Your task to perform on an android device: Open calendar and show me the fourth week of next month Image 0: 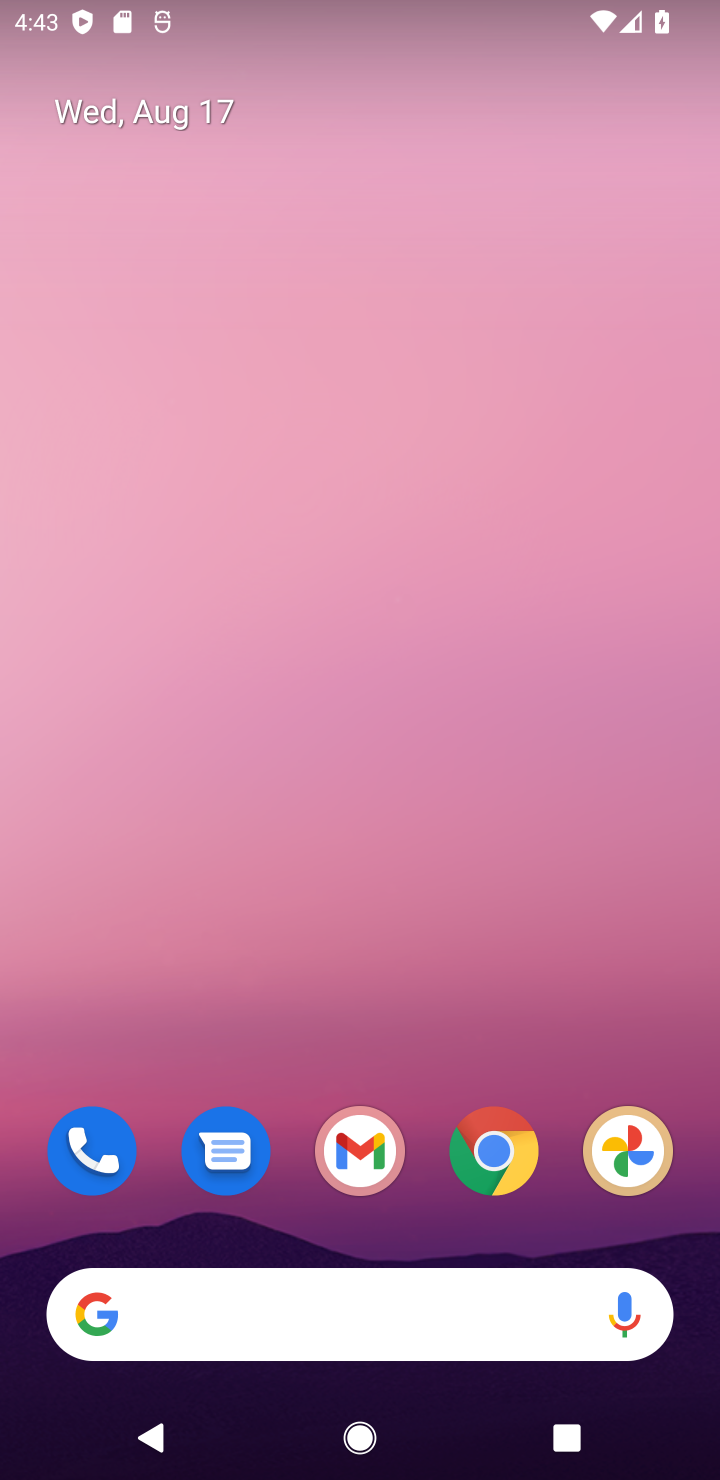
Step 0: click (409, 1246)
Your task to perform on an android device: Open calendar and show me the fourth week of next month Image 1: 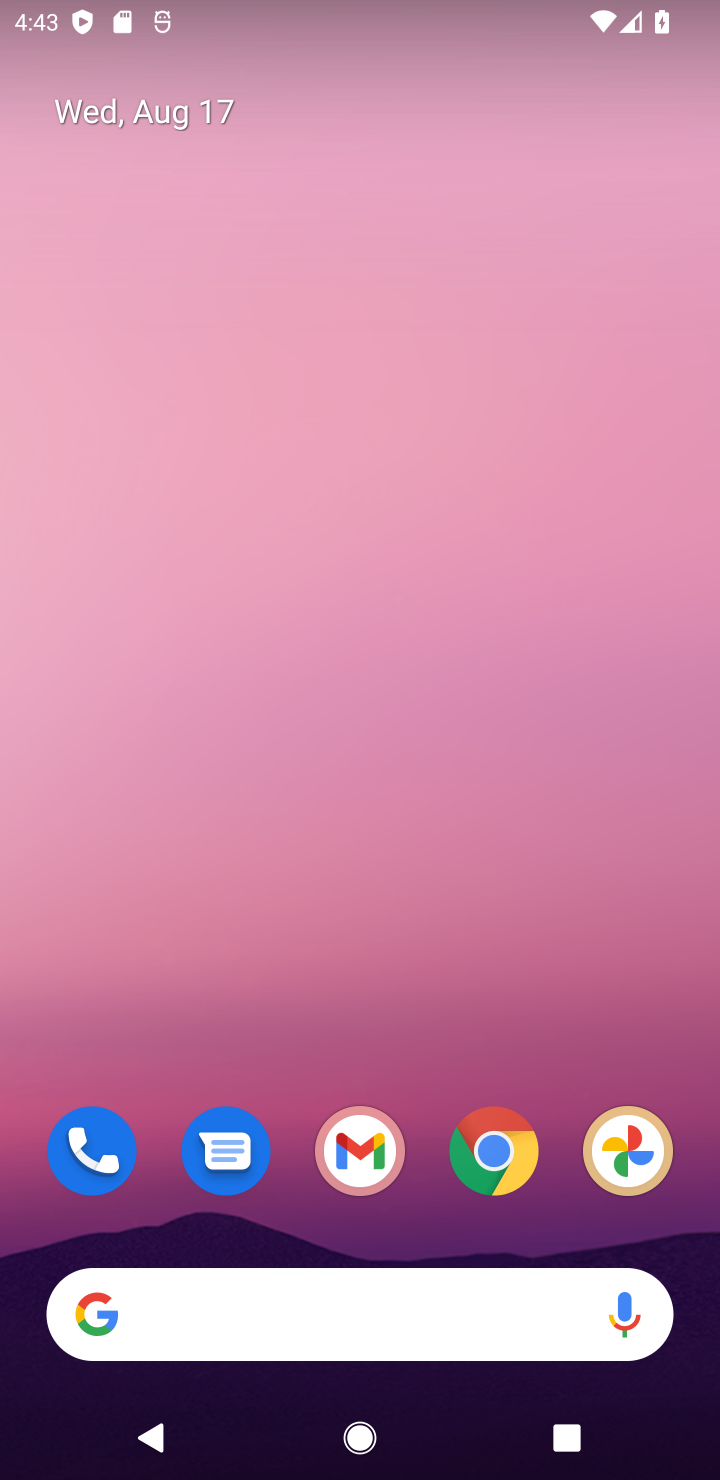
Step 1: drag from (409, 1246) to (386, 115)
Your task to perform on an android device: Open calendar and show me the fourth week of next month Image 2: 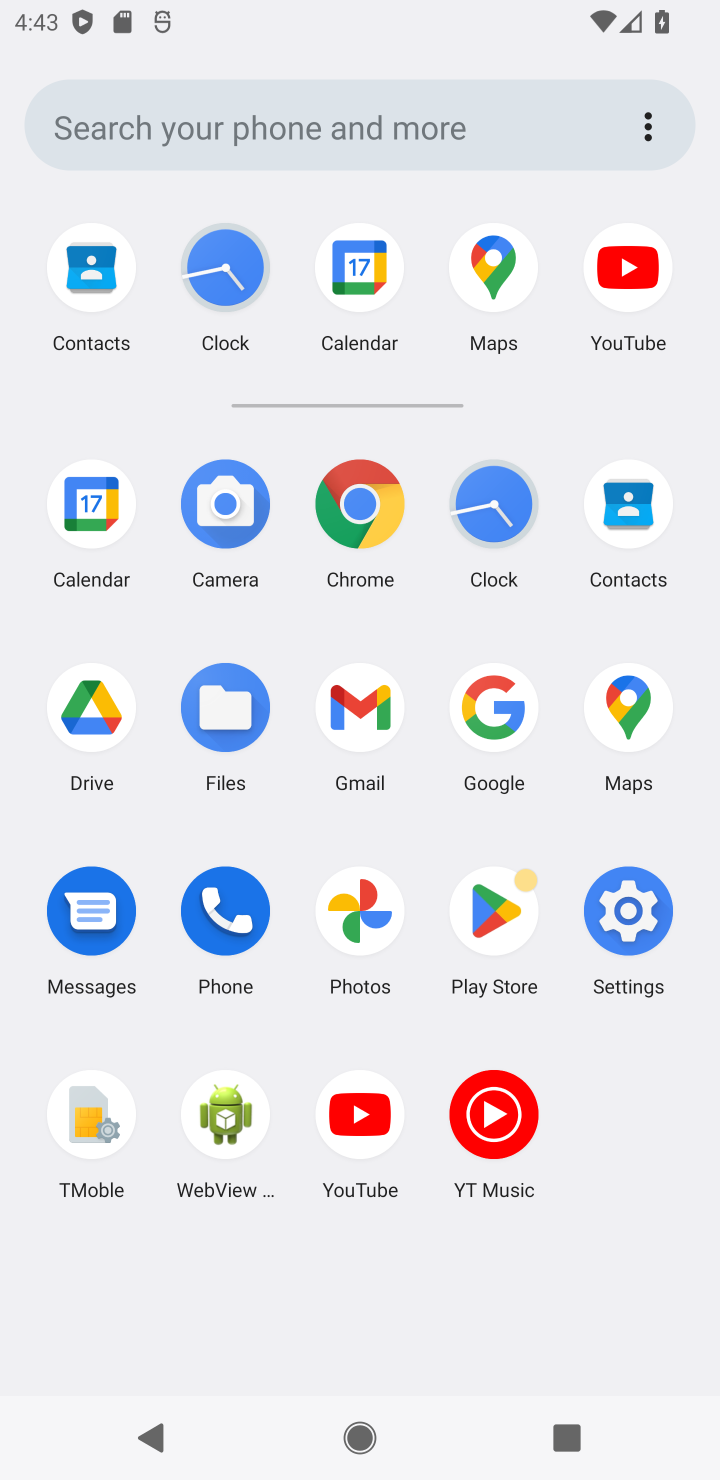
Step 2: click (334, 313)
Your task to perform on an android device: Open calendar and show me the fourth week of next month Image 3: 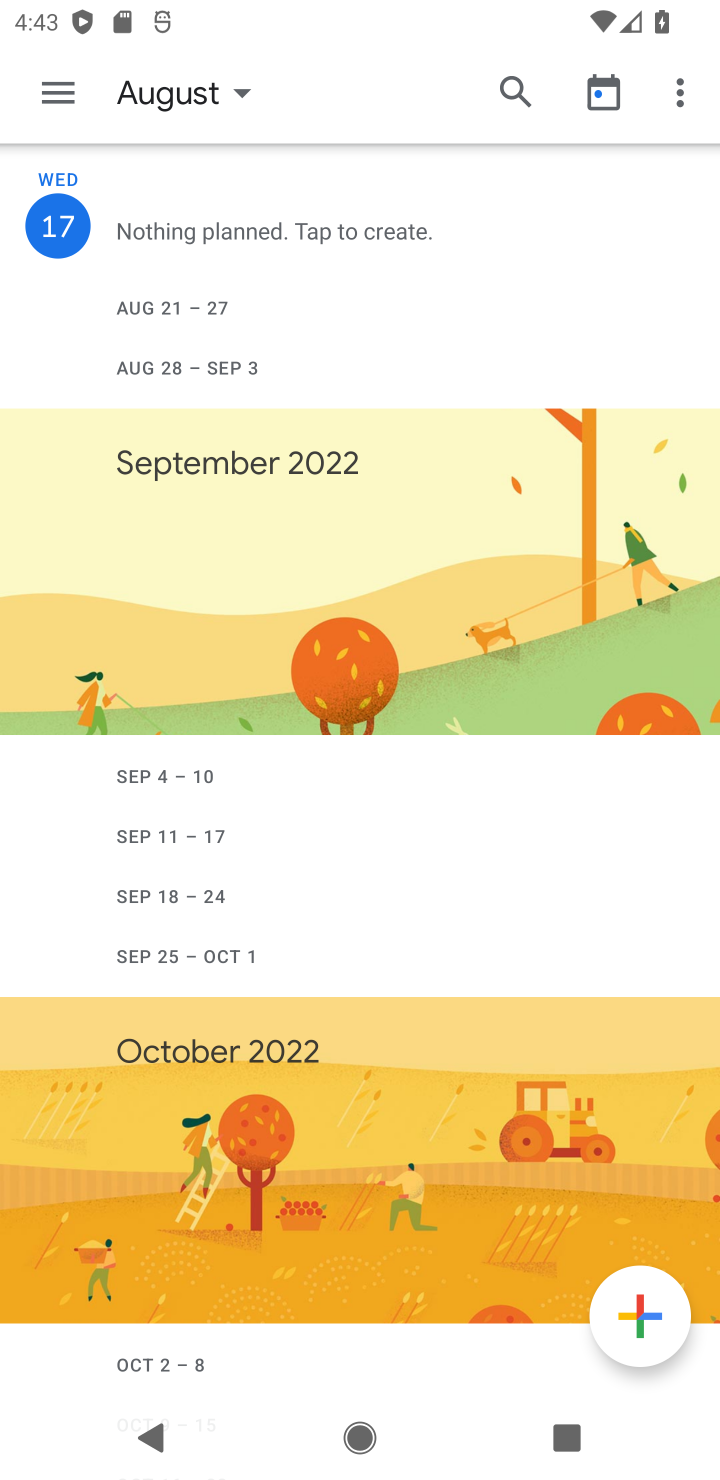
Step 3: task complete